Your task to perform on an android device: Open the Play Movies app and select the watchlist tab. Image 0: 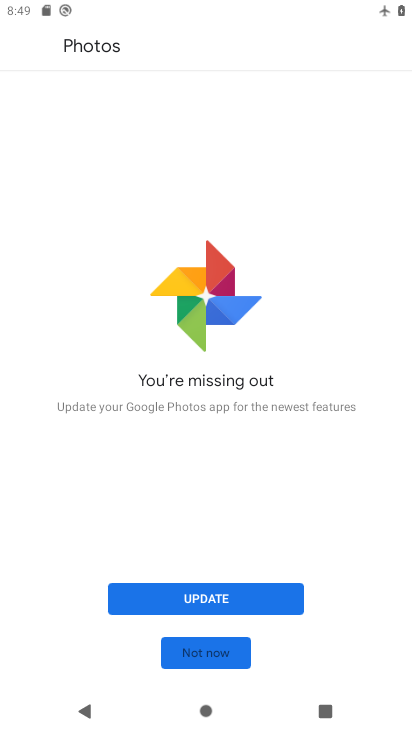
Step 0: press home button
Your task to perform on an android device: Open the Play Movies app and select the watchlist tab. Image 1: 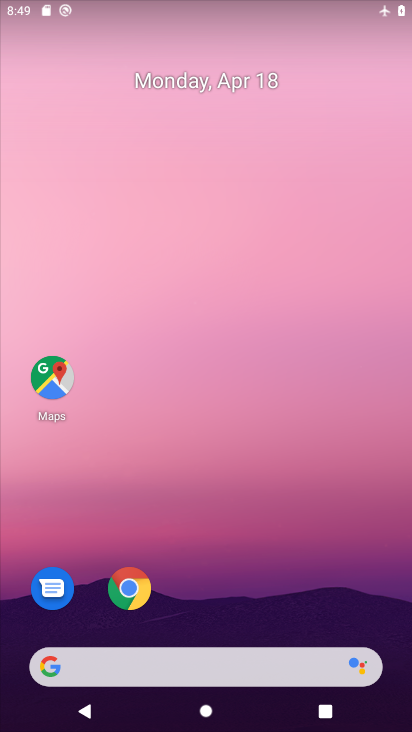
Step 1: drag from (18, 506) to (333, 63)
Your task to perform on an android device: Open the Play Movies app and select the watchlist tab. Image 2: 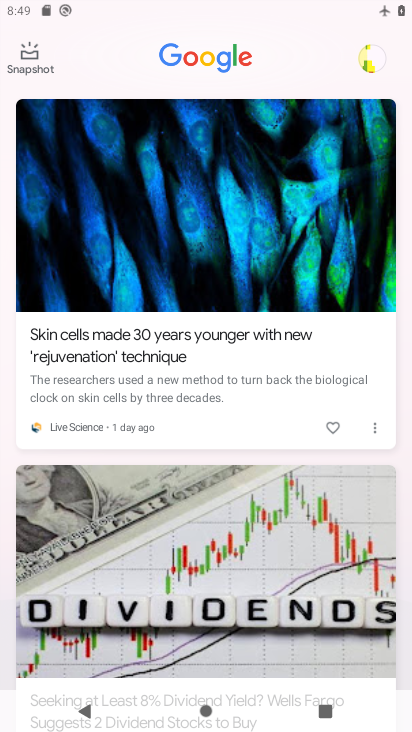
Step 2: press back button
Your task to perform on an android device: Open the Play Movies app and select the watchlist tab. Image 3: 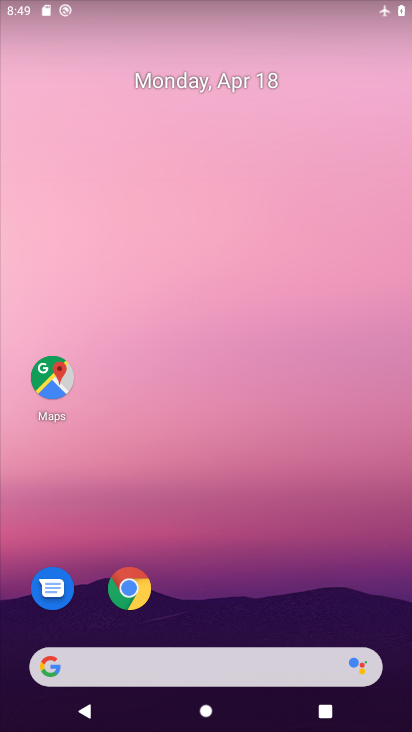
Step 3: drag from (315, 600) to (367, 113)
Your task to perform on an android device: Open the Play Movies app and select the watchlist tab. Image 4: 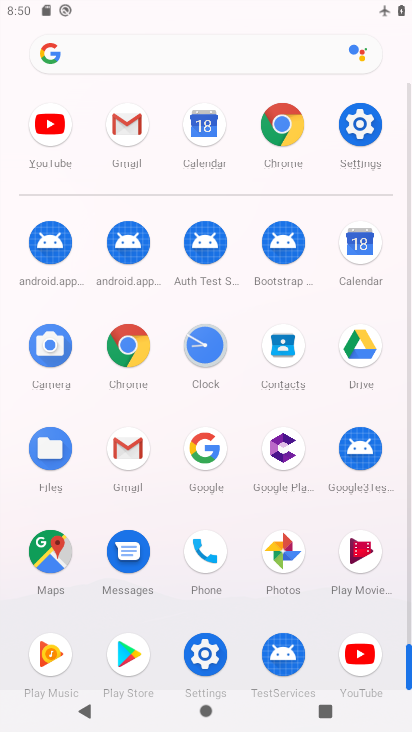
Step 4: click (366, 554)
Your task to perform on an android device: Open the Play Movies app and select the watchlist tab. Image 5: 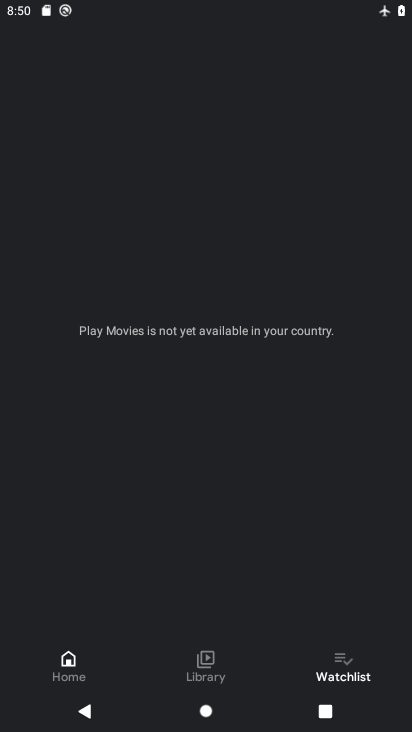
Step 5: click (347, 653)
Your task to perform on an android device: Open the Play Movies app and select the watchlist tab. Image 6: 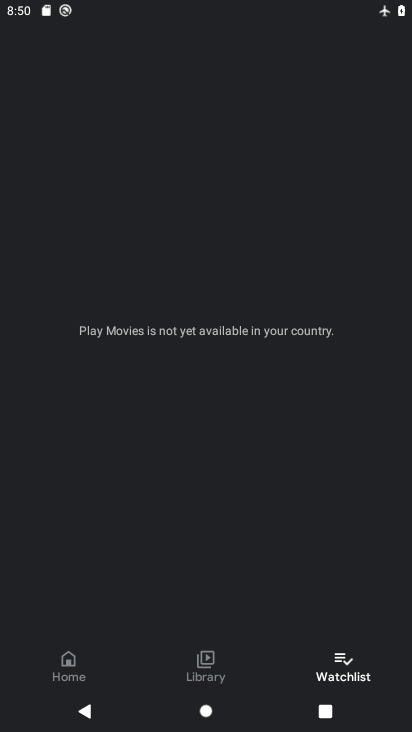
Step 6: task complete